Your task to perform on an android device: Open the stopwatch Image 0: 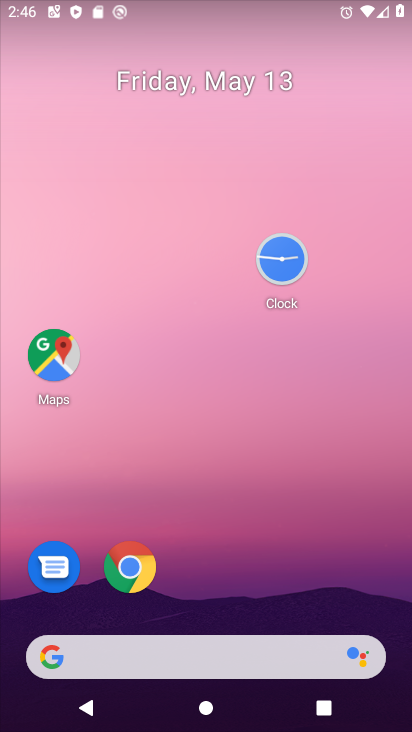
Step 0: drag from (255, 610) to (189, 275)
Your task to perform on an android device: Open the stopwatch Image 1: 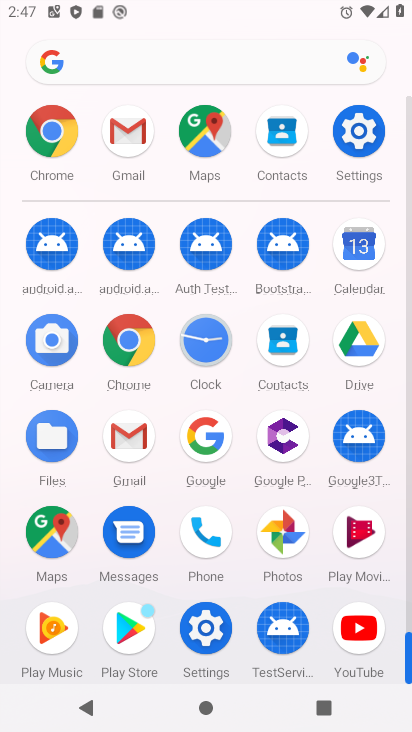
Step 1: click (194, 332)
Your task to perform on an android device: Open the stopwatch Image 2: 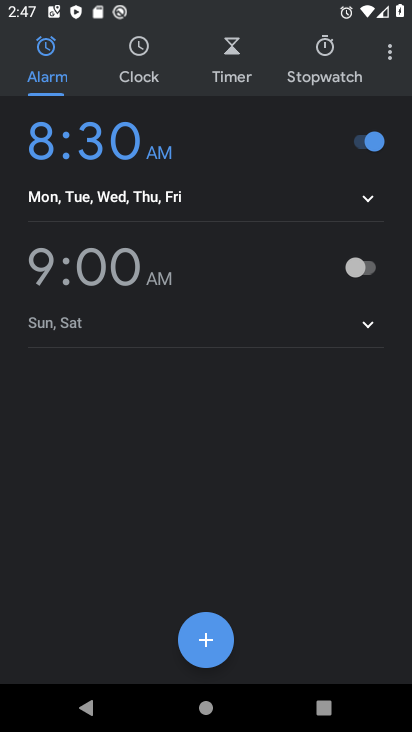
Step 2: click (341, 64)
Your task to perform on an android device: Open the stopwatch Image 3: 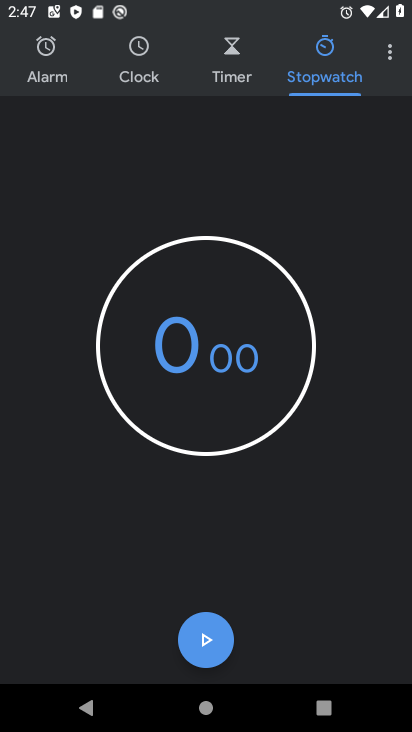
Step 3: task complete